Your task to perform on an android device: Go to network settings Image 0: 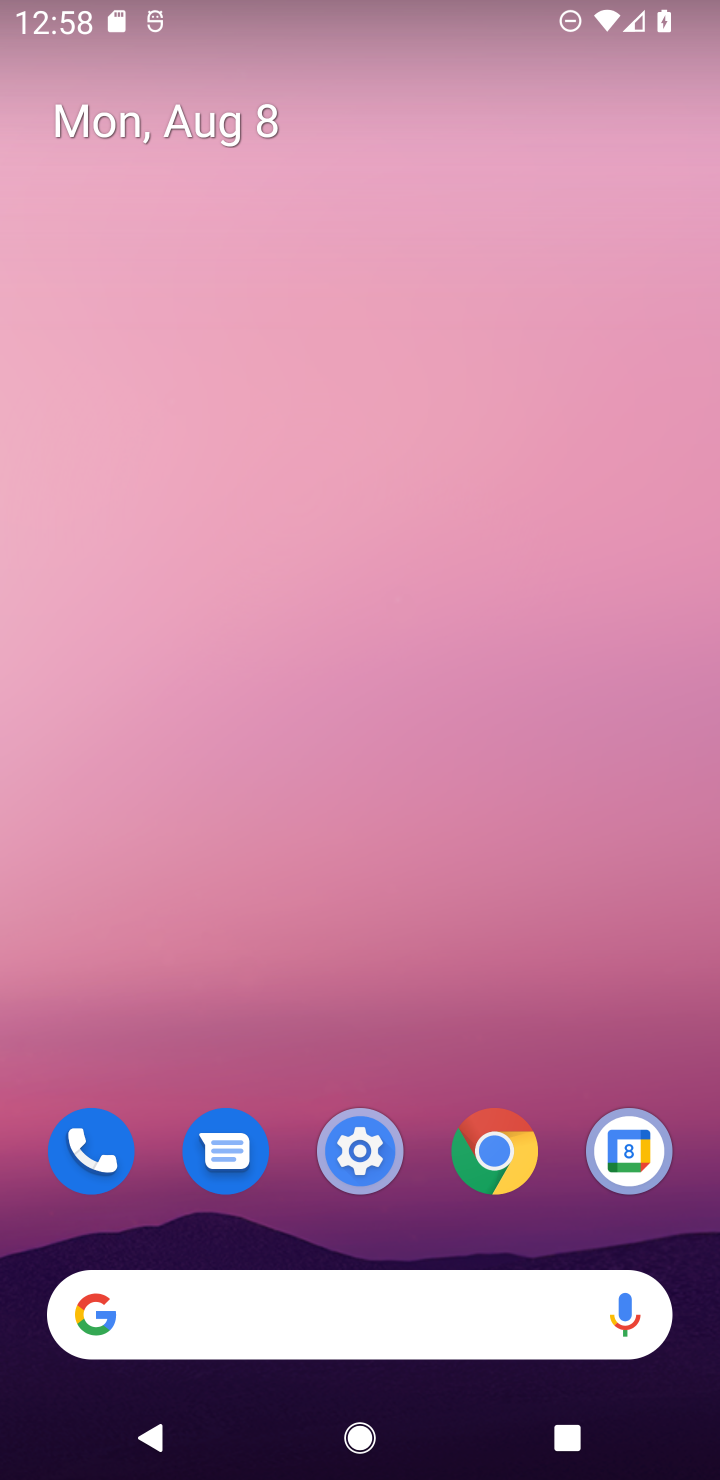
Step 0: click (345, 1160)
Your task to perform on an android device: Go to network settings Image 1: 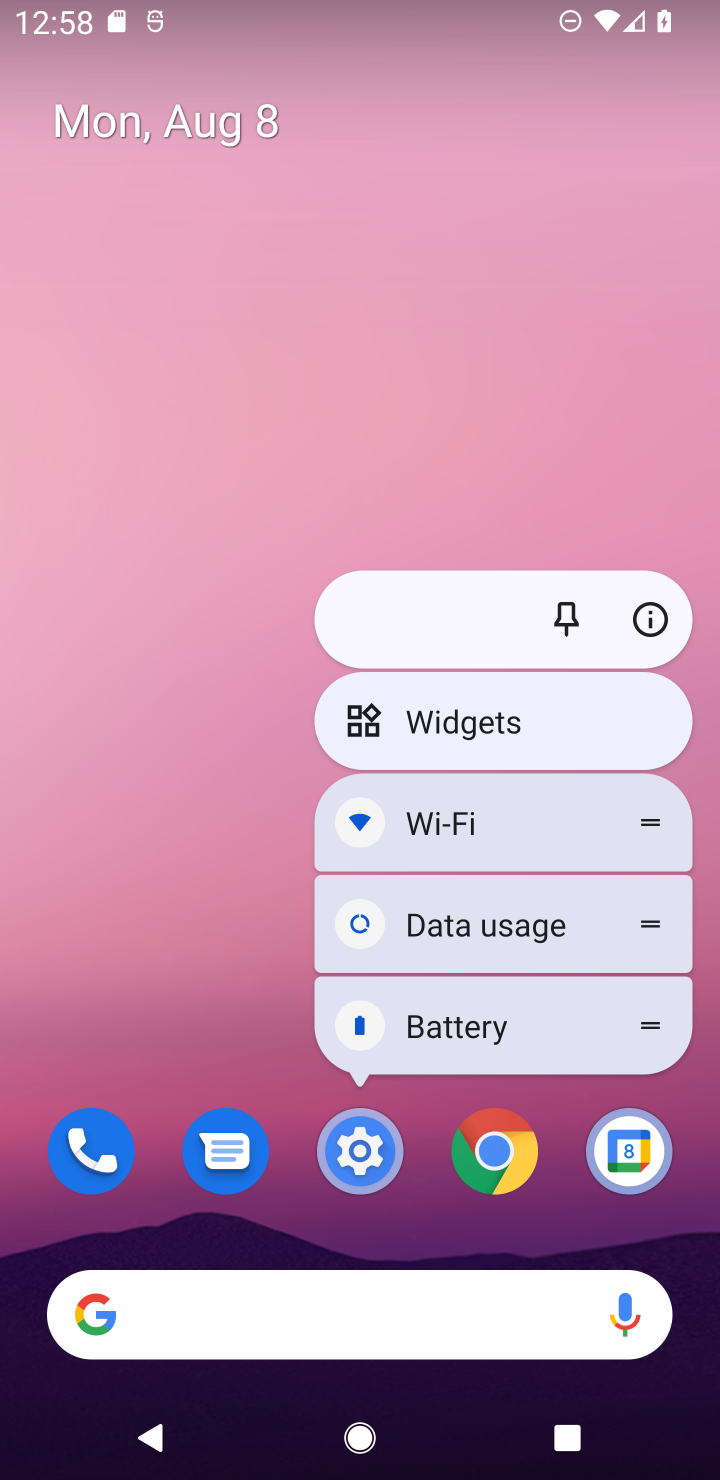
Step 1: click (345, 1160)
Your task to perform on an android device: Go to network settings Image 2: 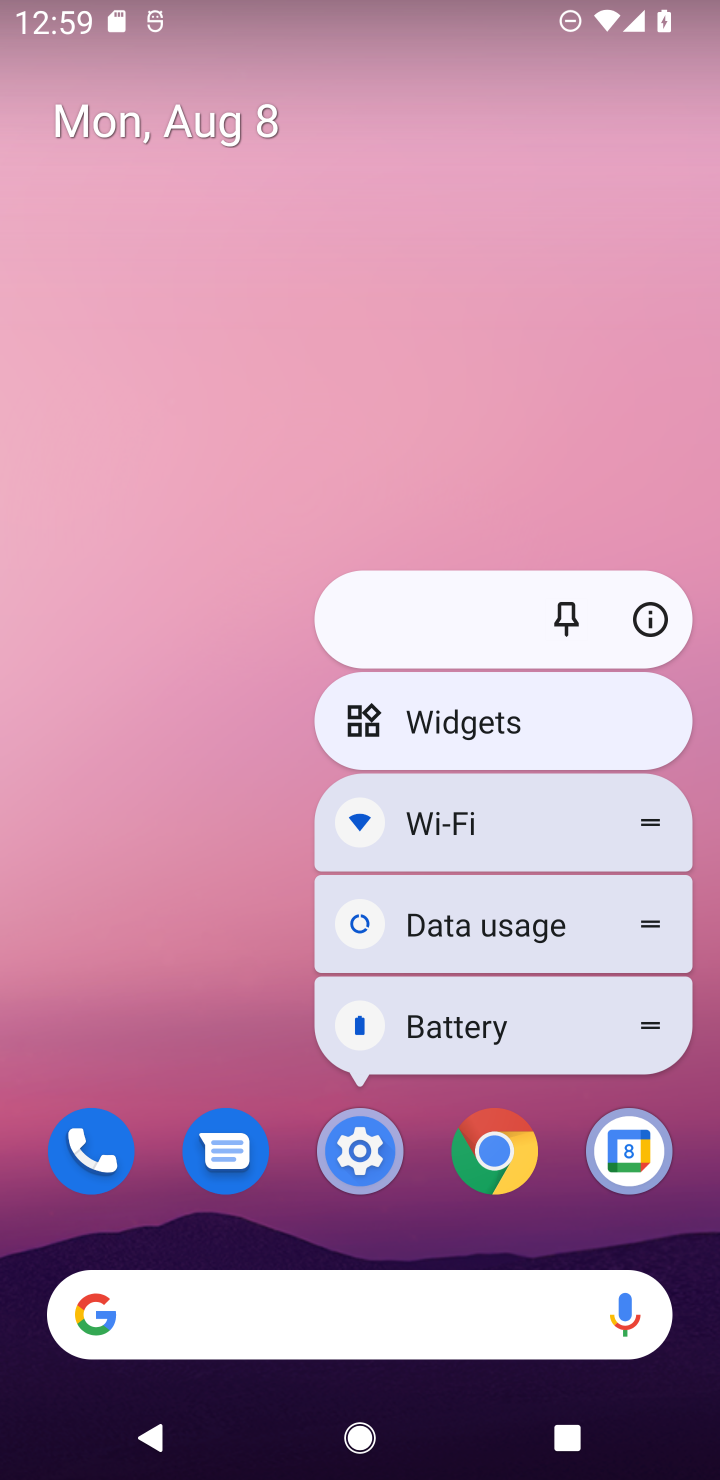
Step 2: click (339, 1117)
Your task to perform on an android device: Go to network settings Image 3: 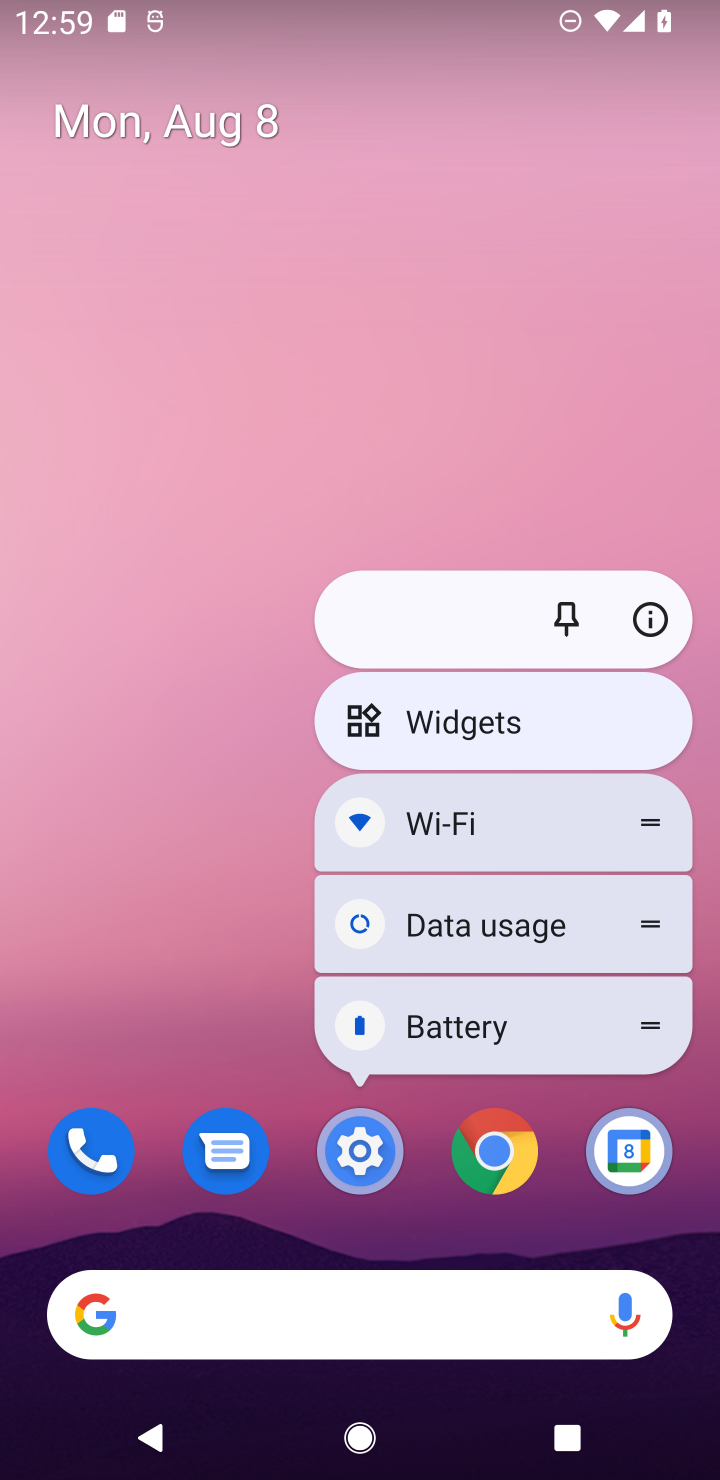
Step 3: click (373, 1142)
Your task to perform on an android device: Go to network settings Image 4: 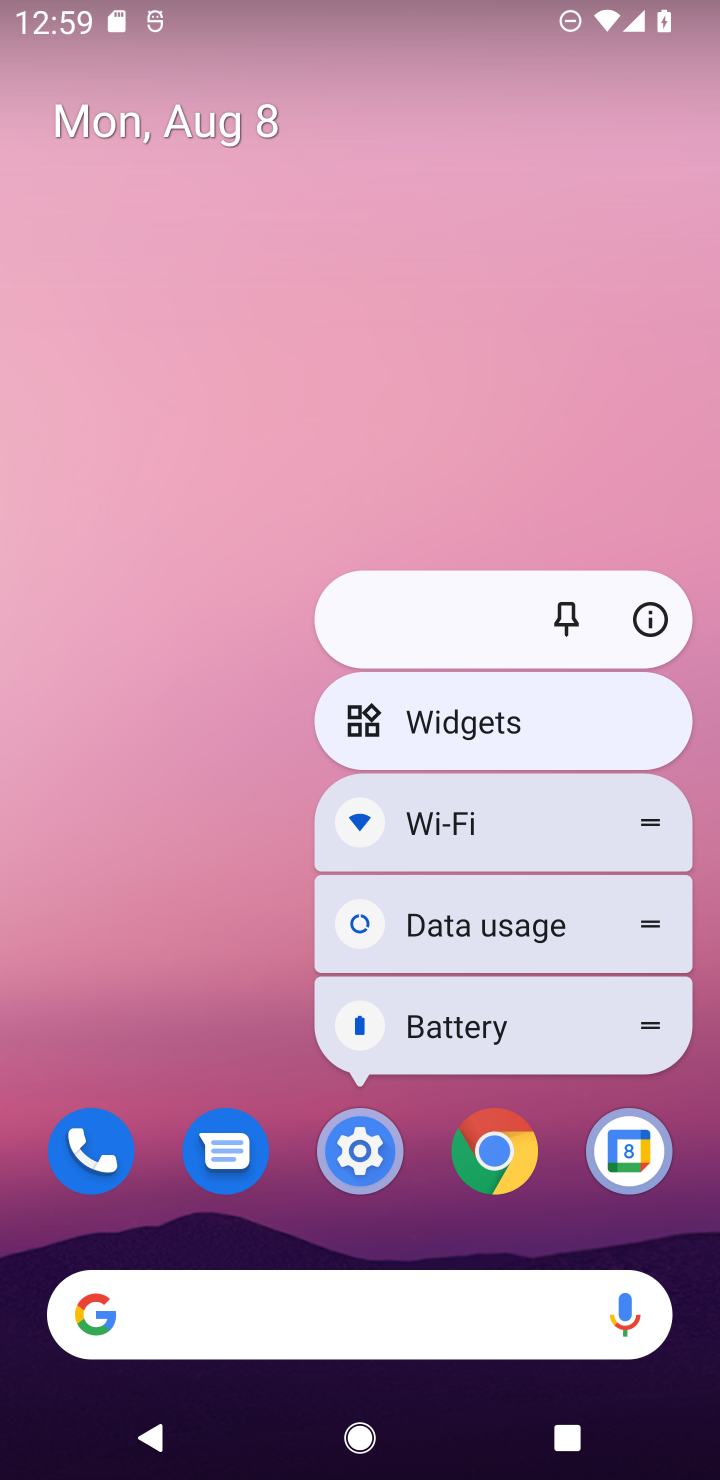
Step 4: drag from (346, 1204) to (338, 265)
Your task to perform on an android device: Go to network settings Image 5: 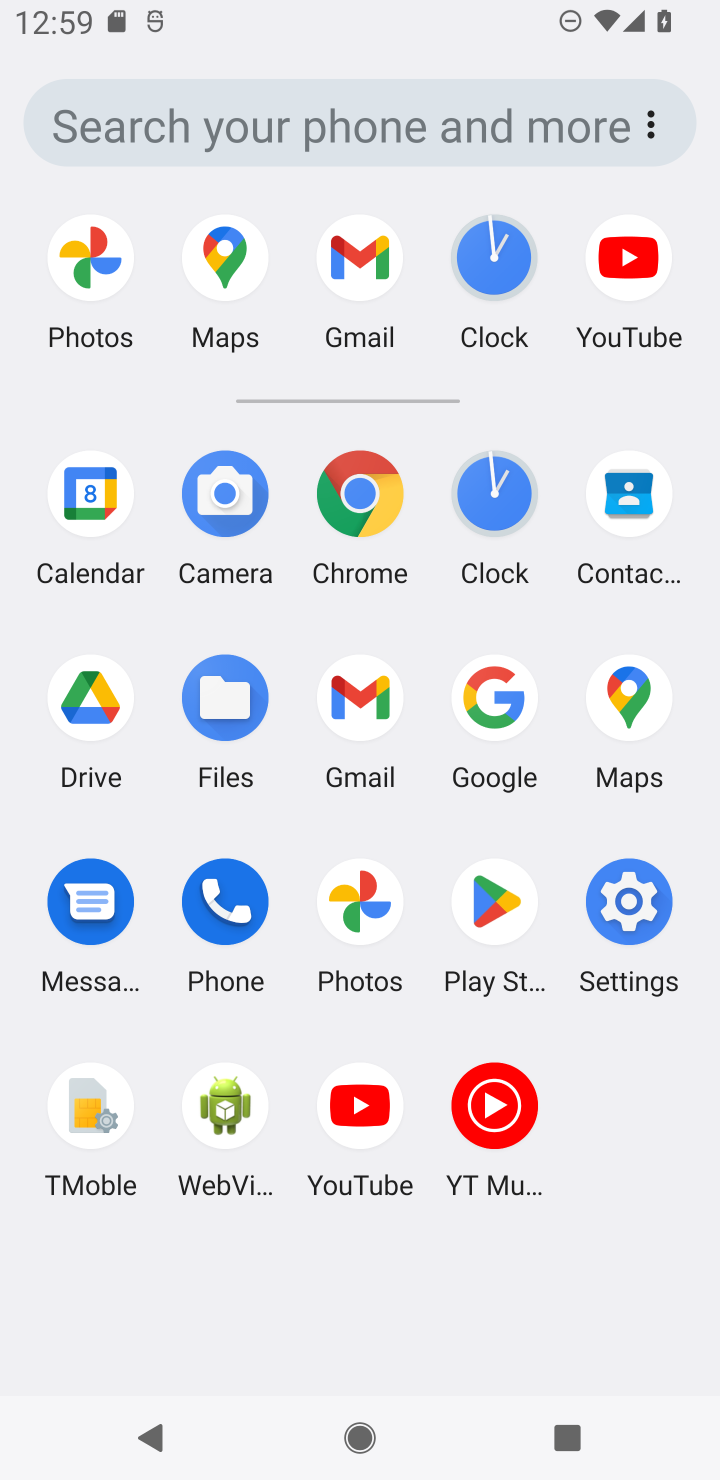
Step 5: click (655, 921)
Your task to perform on an android device: Go to network settings Image 6: 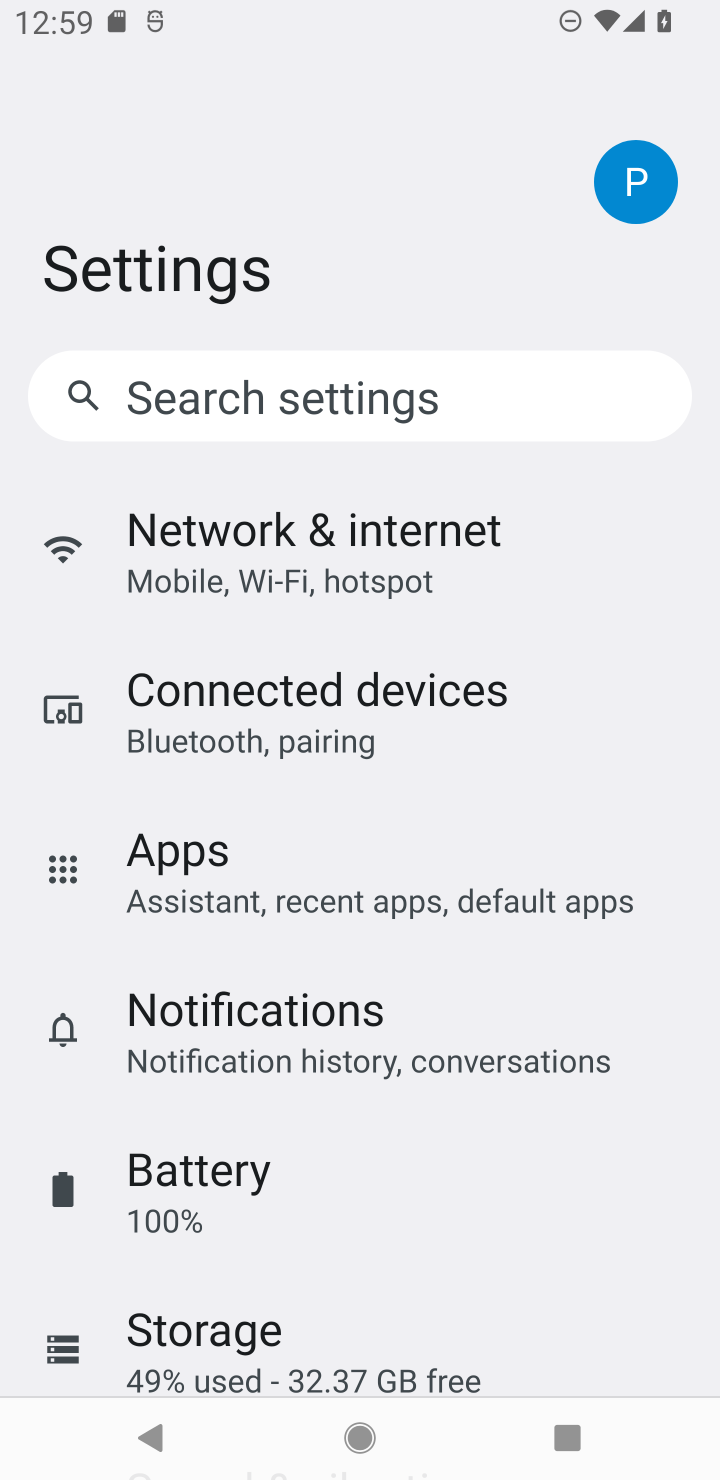
Step 6: click (230, 576)
Your task to perform on an android device: Go to network settings Image 7: 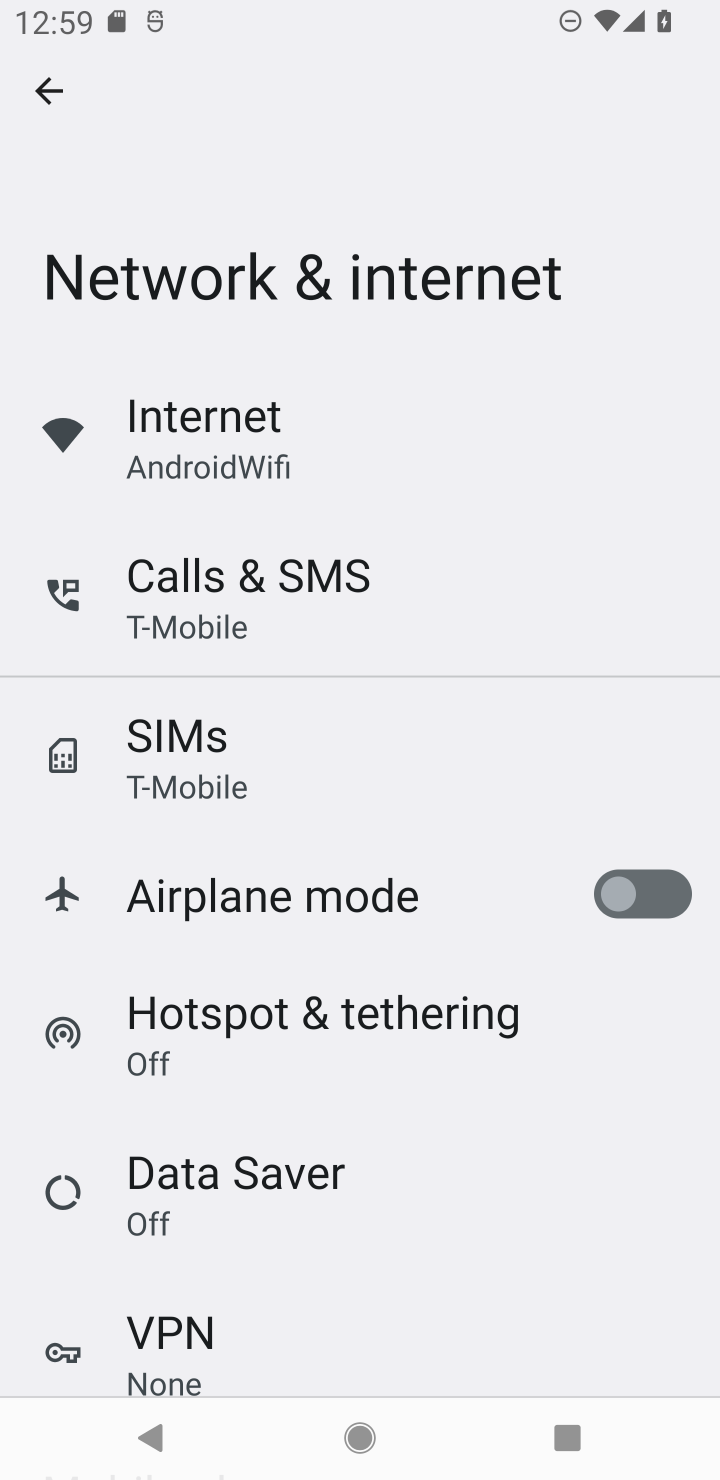
Step 7: click (179, 449)
Your task to perform on an android device: Go to network settings Image 8: 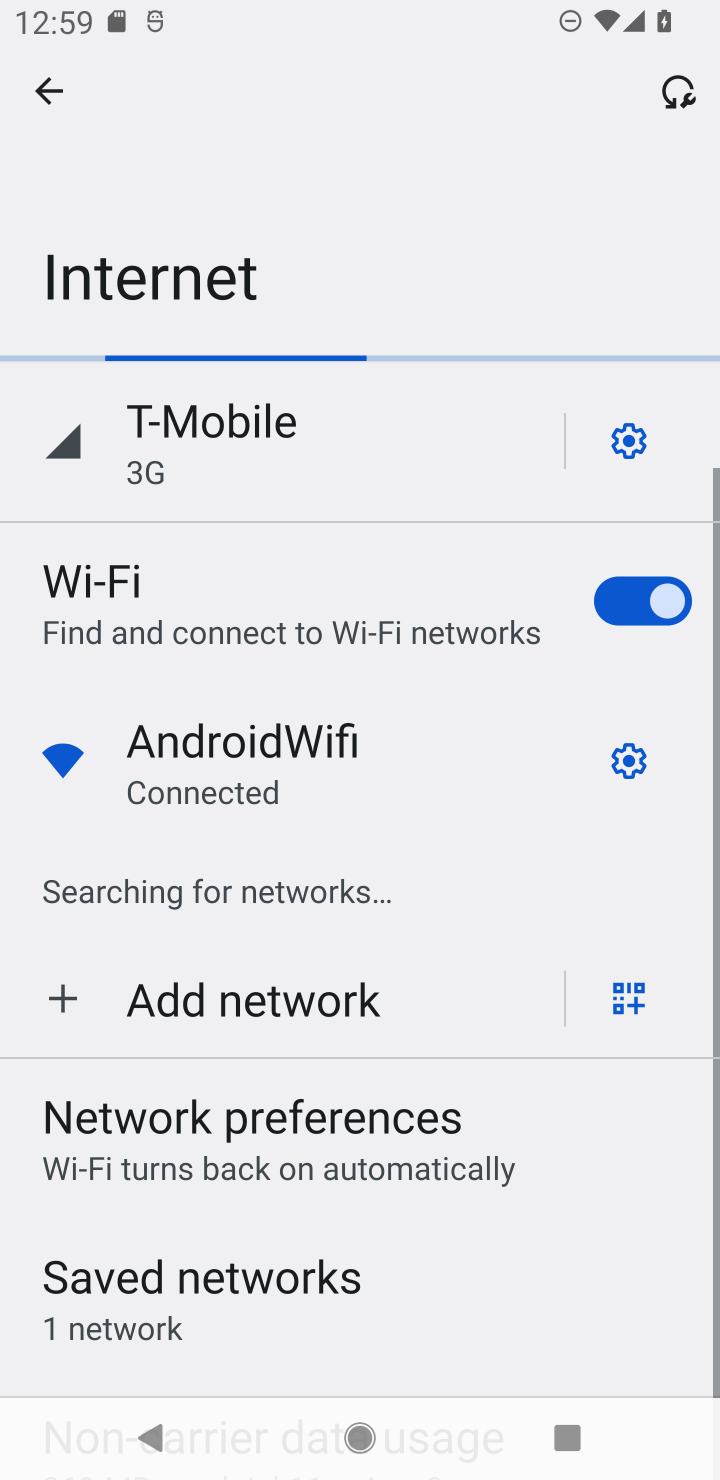
Step 8: click (622, 437)
Your task to perform on an android device: Go to network settings Image 9: 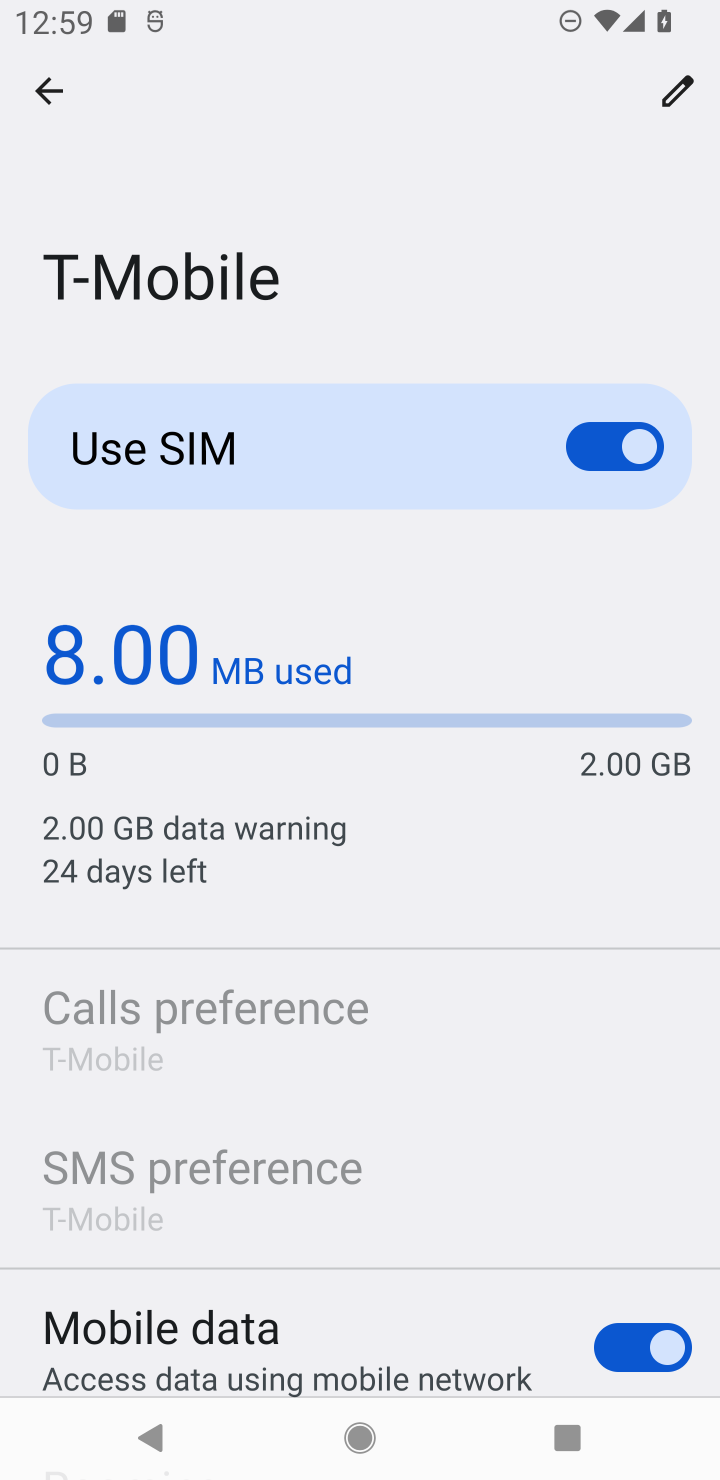
Step 9: task complete